Your task to perform on an android device: allow cookies in the chrome app Image 0: 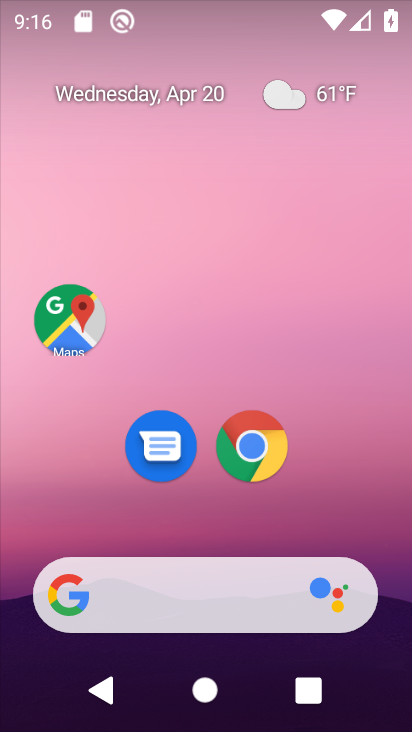
Step 0: drag from (377, 490) to (386, 80)
Your task to perform on an android device: allow cookies in the chrome app Image 1: 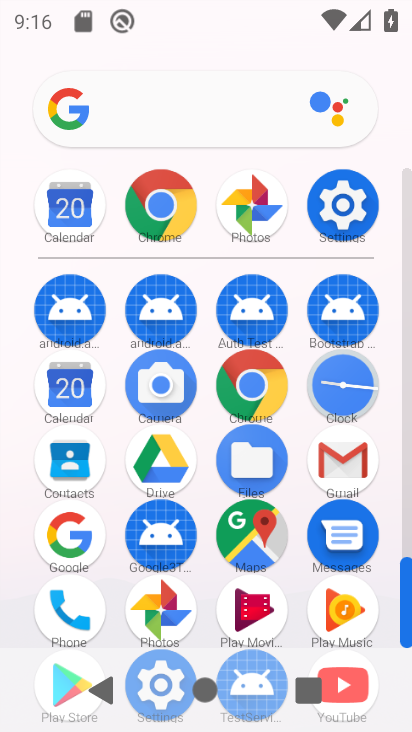
Step 1: click (260, 390)
Your task to perform on an android device: allow cookies in the chrome app Image 2: 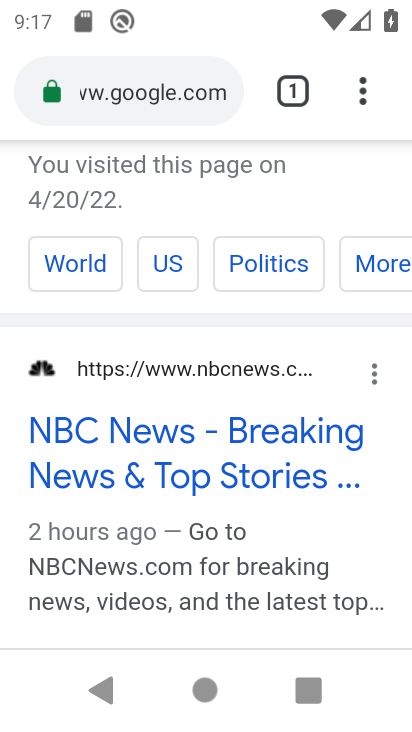
Step 2: click (363, 105)
Your task to perform on an android device: allow cookies in the chrome app Image 3: 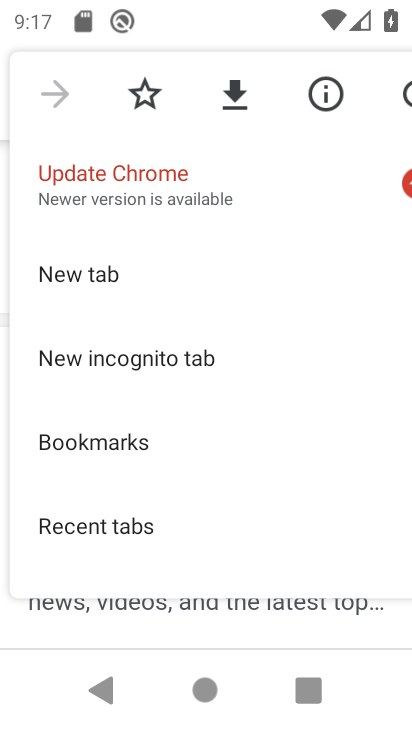
Step 3: drag from (225, 514) to (226, 219)
Your task to perform on an android device: allow cookies in the chrome app Image 4: 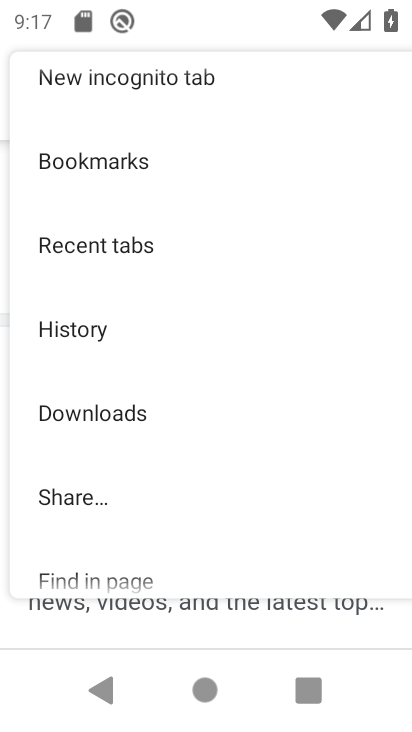
Step 4: drag from (217, 486) to (213, 264)
Your task to perform on an android device: allow cookies in the chrome app Image 5: 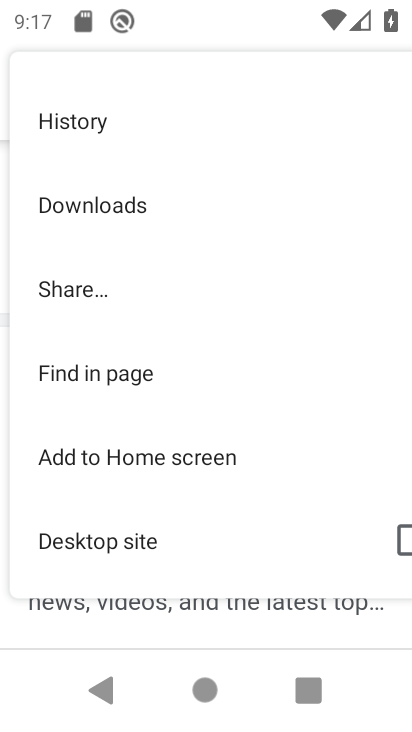
Step 5: drag from (224, 498) to (227, 264)
Your task to perform on an android device: allow cookies in the chrome app Image 6: 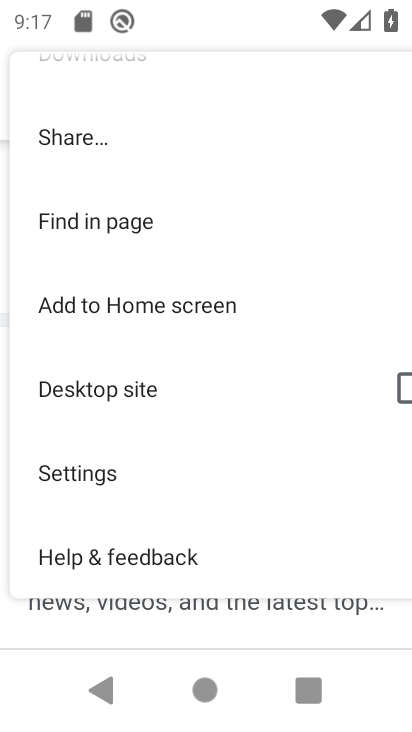
Step 6: drag from (240, 159) to (249, 226)
Your task to perform on an android device: allow cookies in the chrome app Image 7: 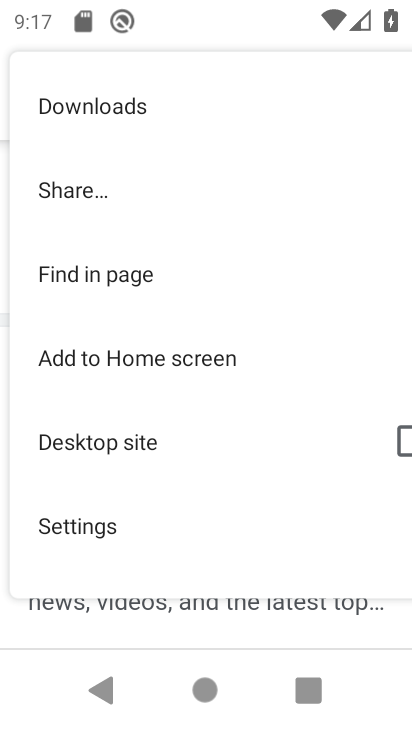
Step 7: click (96, 535)
Your task to perform on an android device: allow cookies in the chrome app Image 8: 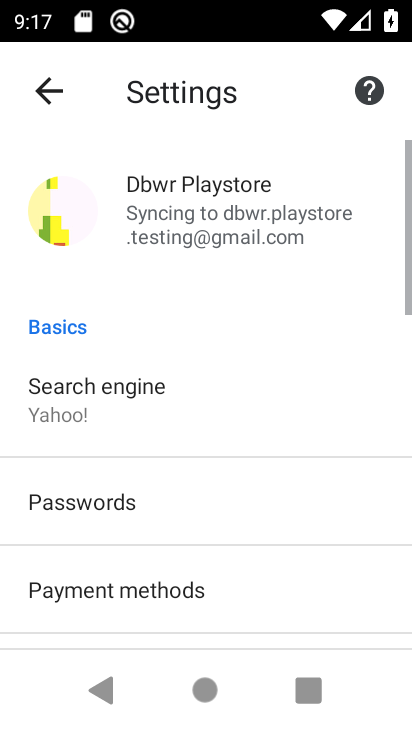
Step 8: drag from (275, 592) to (313, 325)
Your task to perform on an android device: allow cookies in the chrome app Image 9: 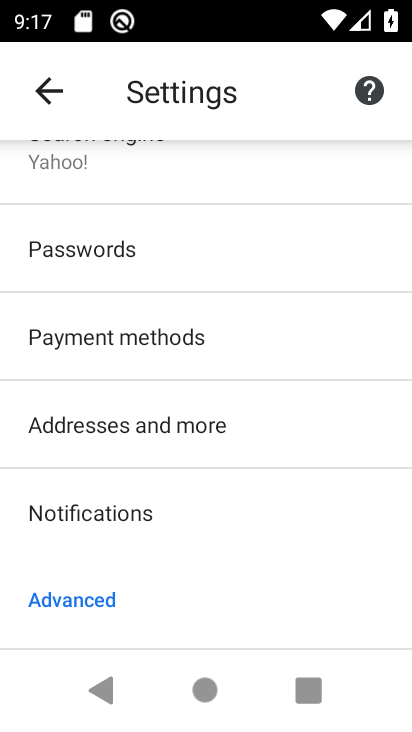
Step 9: drag from (296, 555) to (307, 293)
Your task to perform on an android device: allow cookies in the chrome app Image 10: 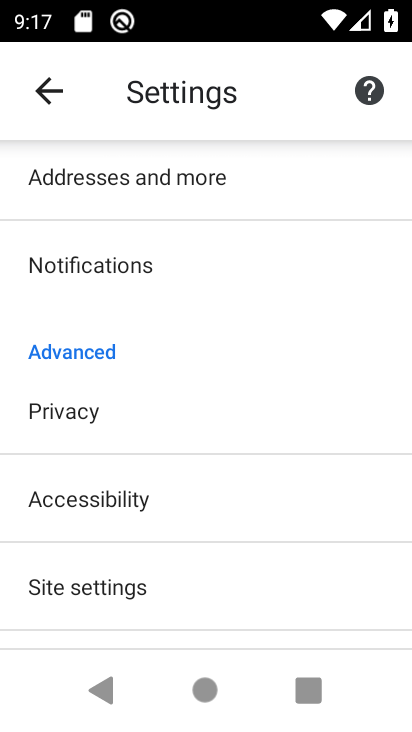
Step 10: drag from (267, 541) to (303, 287)
Your task to perform on an android device: allow cookies in the chrome app Image 11: 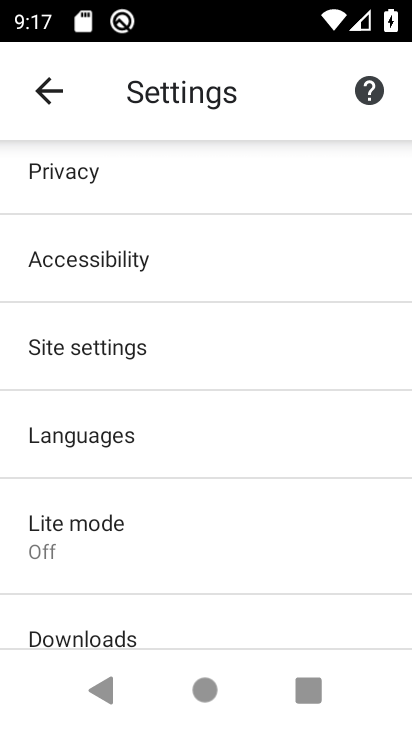
Step 11: click (112, 346)
Your task to perform on an android device: allow cookies in the chrome app Image 12: 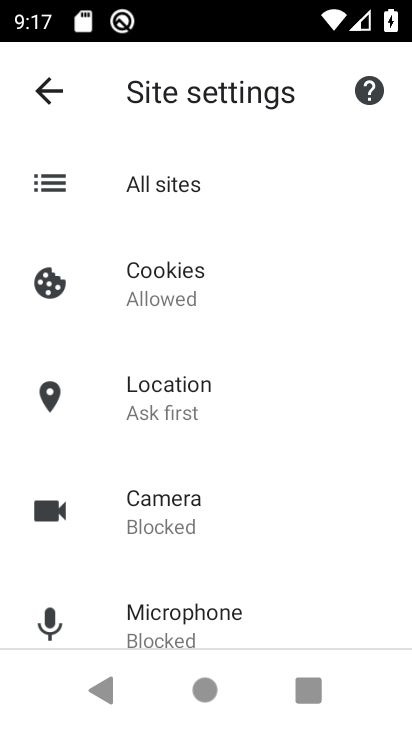
Step 12: click (189, 272)
Your task to perform on an android device: allow cookies in the chrome app Image 13: 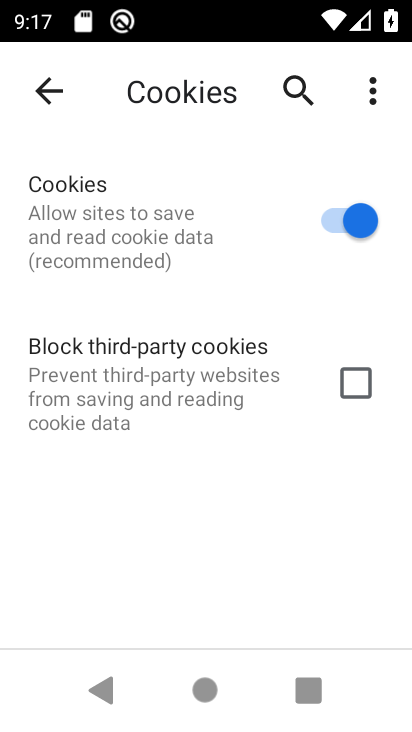
Step 13: task complete